Your task to perform on an android device: toggle notifications settings in the gmail app Image 0: 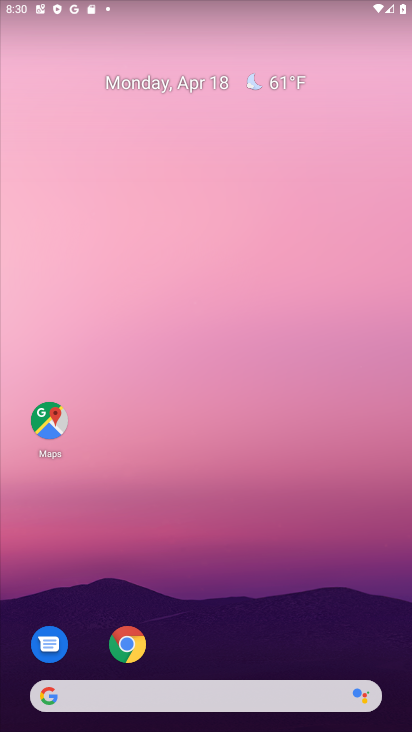
Step 0: drag from (184, 694) to (203, 124)
Your task to perform on an android device: toggle notifications settings in the gmail app Image 1: 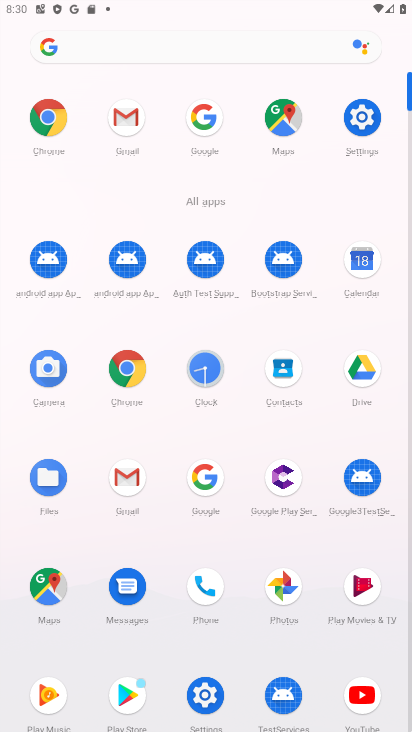
Step 1: click (134, 481)
Your task to perform on an android device: toggle notifications settings in the gmail app Image 2: 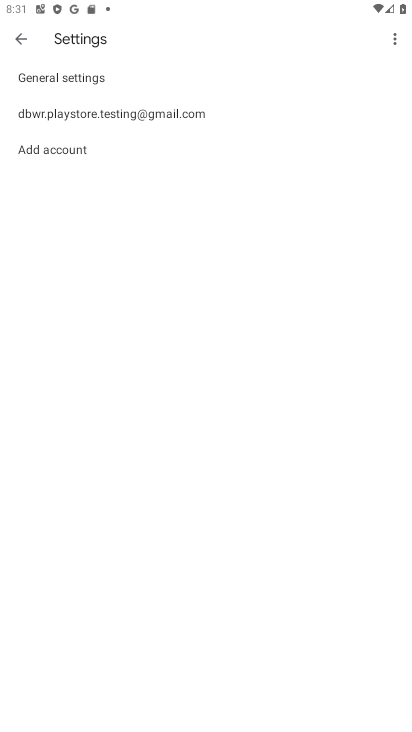
Step 2: click (90, 114)
Your task to perform on an android device: toggle notifications settings in the gmail app Image 3: 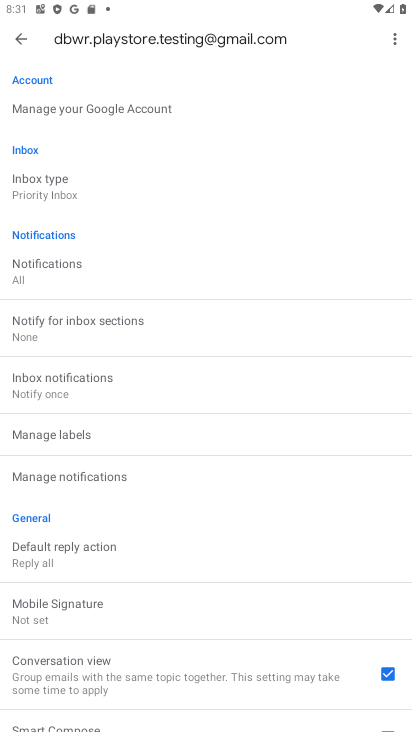
Step 3: click (98, 475)
Your task to perform on an android device: toggle notifications settings in the gmail app Image 4: 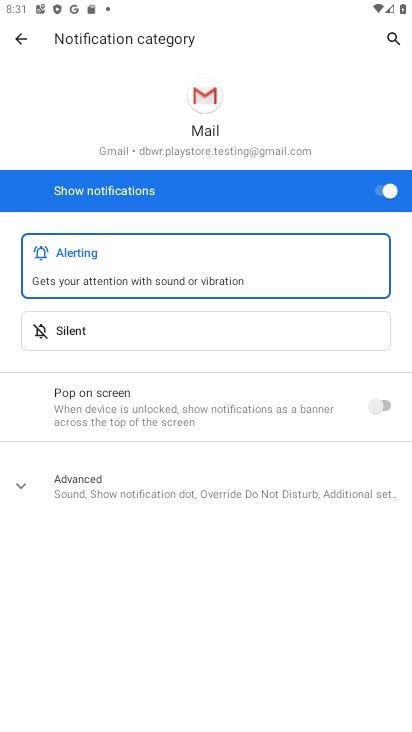
Step 4: click (378, 200)
Your task to perform on an android device: toggle notifications settings in the gmail app Image 5: 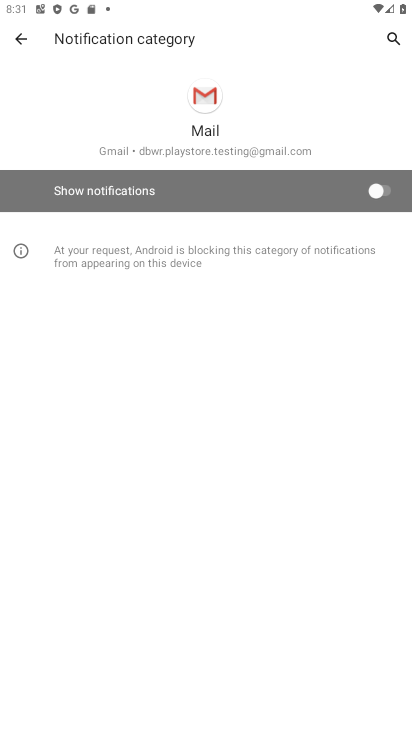
Step 5: task complete